Your task to perform on an android device: clear history in the chrome app Image 0: 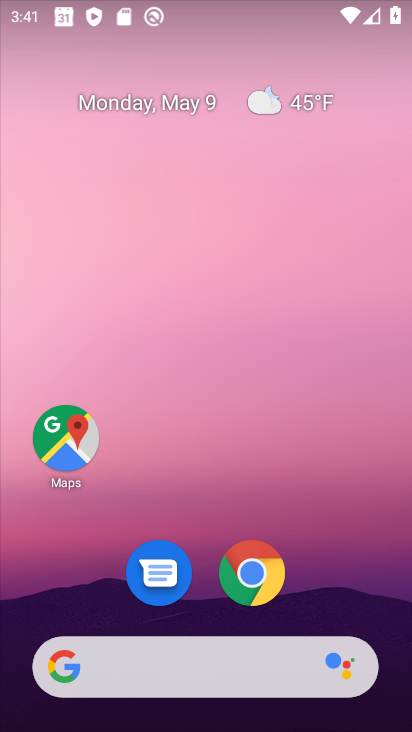
Step 0: click (251, 573)
Your task to perform on an android device: clear history in the chrome app Image 1: 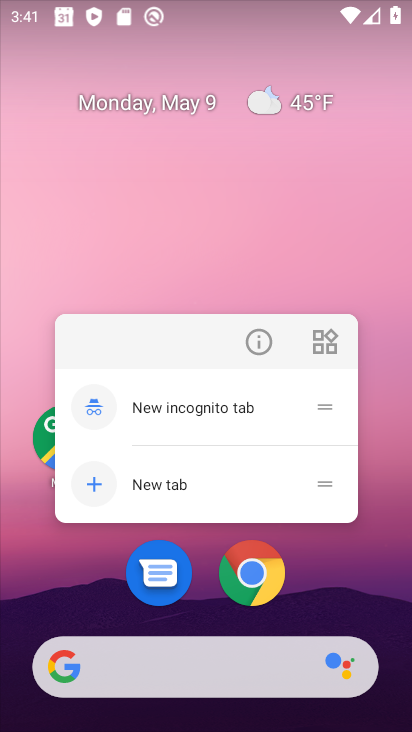
Step 1: click (251, 579)
Your task to perform on an android device: clear history in the chrome app Image 2: 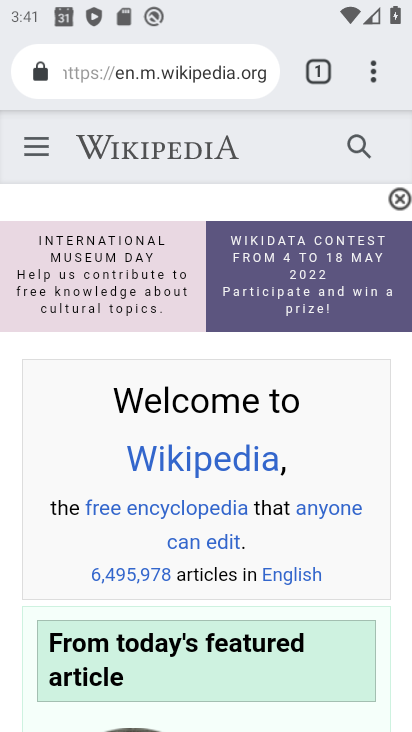
Step 2: drag from (373, 72) to (170, 583)
Your task to perform on an android device: clear history in the chrome app Image 3: 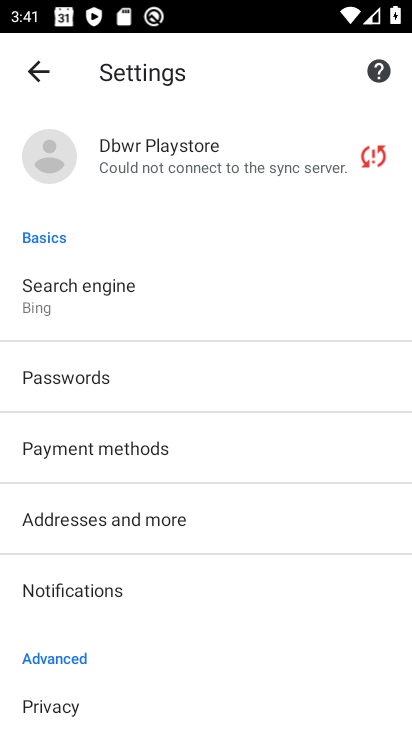
Step 3: drag from (196, 582) to (182, 330)
Your task to perform on an android device: clear history in the chrome app Image 4: 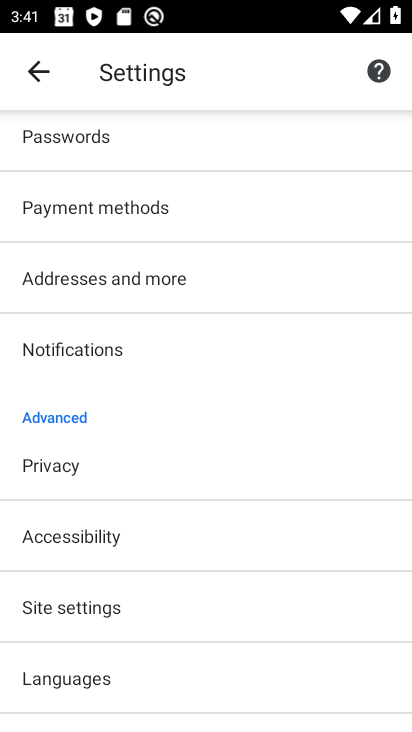
Step 4: click (70, 469)
Your task to perform on an android device: clear history in the chrome app Image 5: 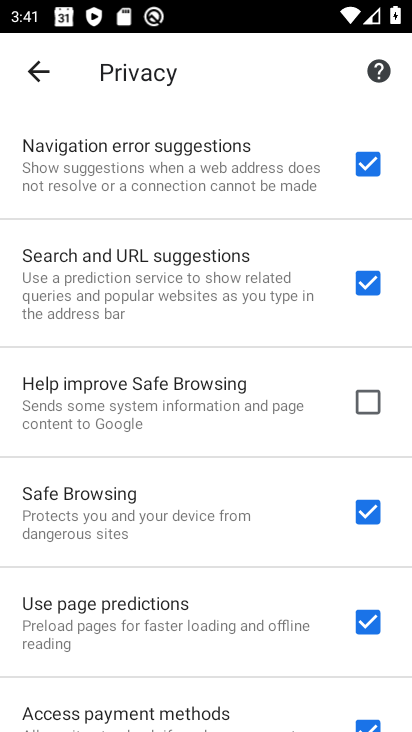
Step 5: drag from (137, 628) to (113, 217)
Your task to perform on an android device: clear history in the chrome app Image 6: 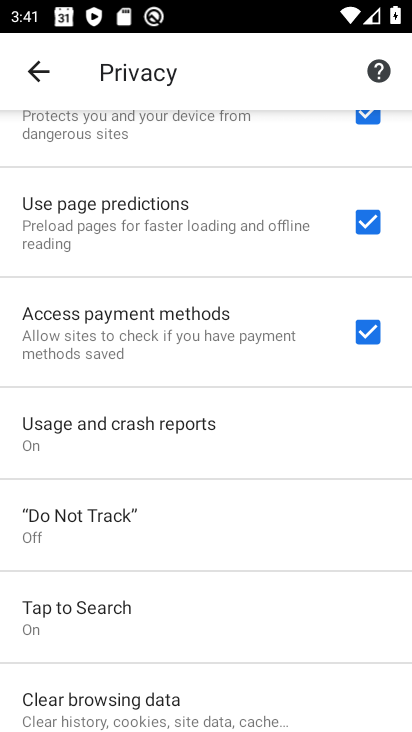
Step 6: drag from (52, 613) to (69, 294)
Your task to perform on an android device: clear history in the chrome app Image 7: 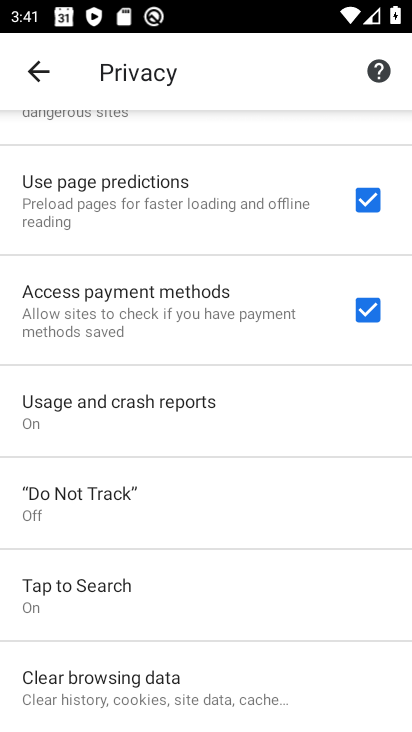
Step 7: click (171, 709)
Your task to perform on an android device: clear history in the chrome app Image 8: 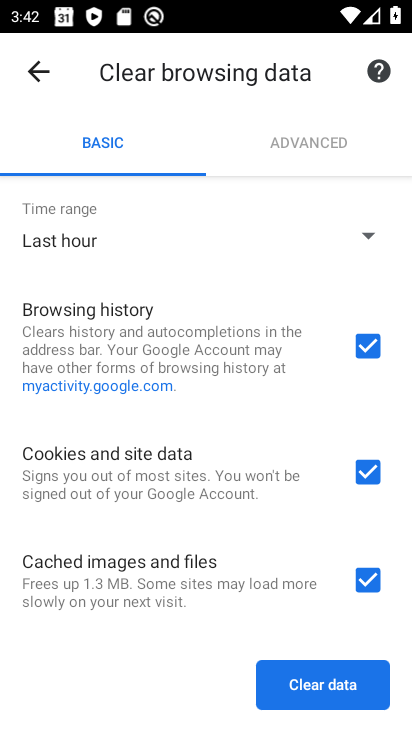
Step 8: click (366, 483)
Your task to perform on an android device: clear history in the chrome app Image 9: 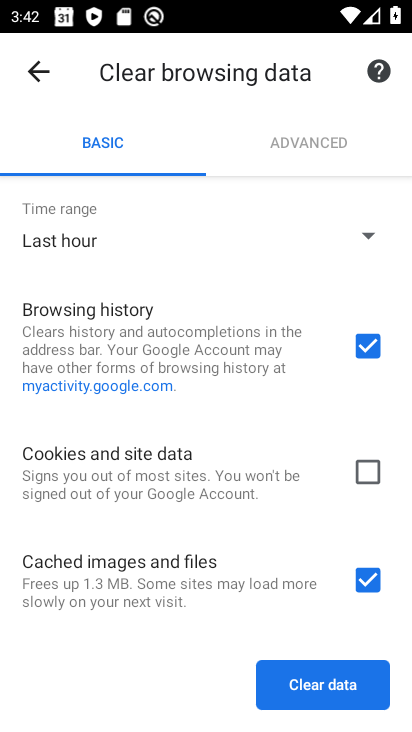
Step 9: click (367, 594)
Your task to perform on an android device: clear history in the chrome app Image 10: 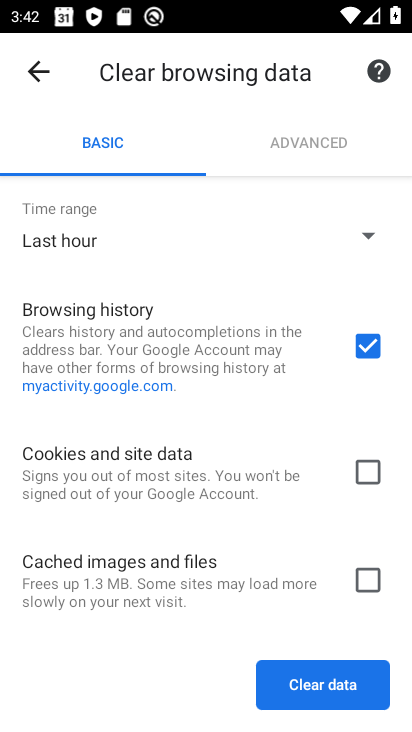
Step 10: click (342, 675)
Your task to perform on an android device: clear history in the chrome app Image 11: 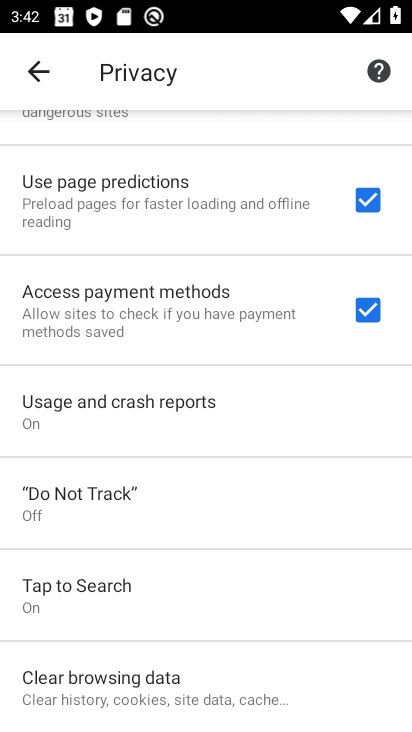
Step 11: task complete